Your task to perform on an android device: remove spam from my inbox in the gmail app Image 0: 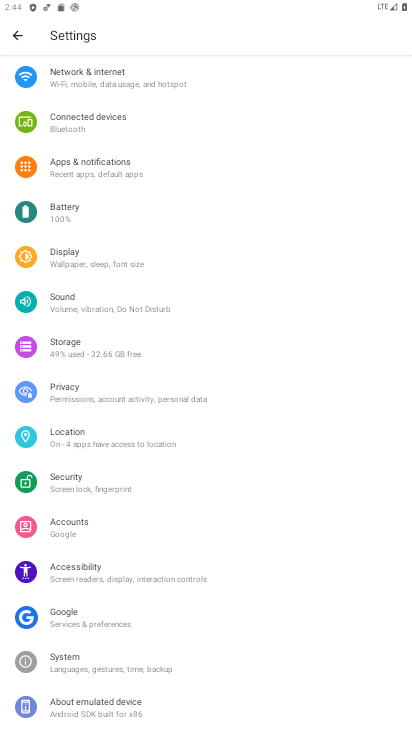
Step 0: press home button
Your task to perform on an android device: remove spam from my inbox in the gmail app Image 1: 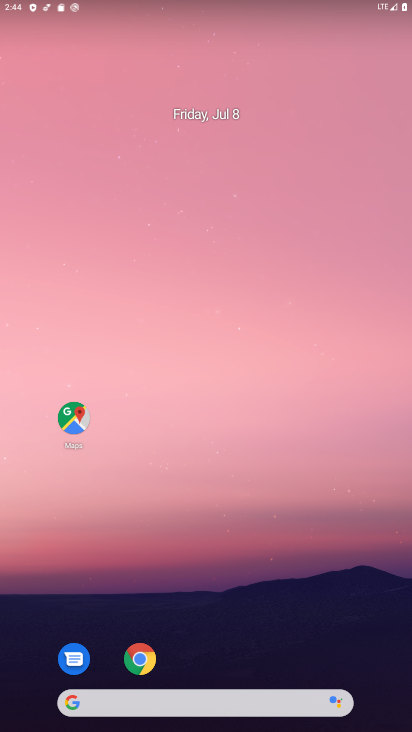
Step 1: drag from (208, 675) to (262, 45)
Your task to perform on an android device: remove spam from my inbox in the gmail app Image 2: 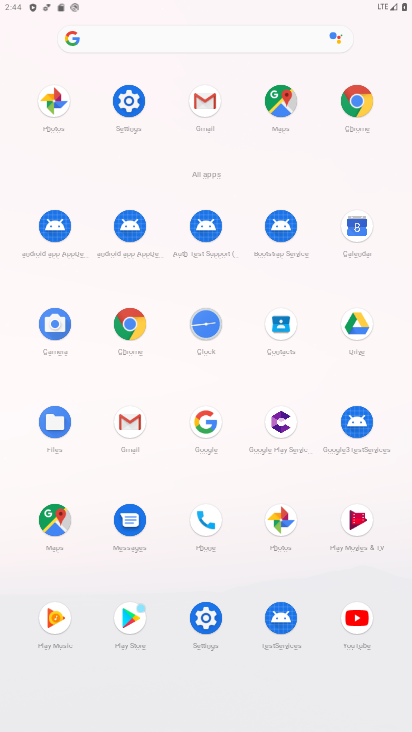
Step 2: click (204, 97)
Your task to perform on an android device: remove spam from my inbox in the gmail app Image 3: 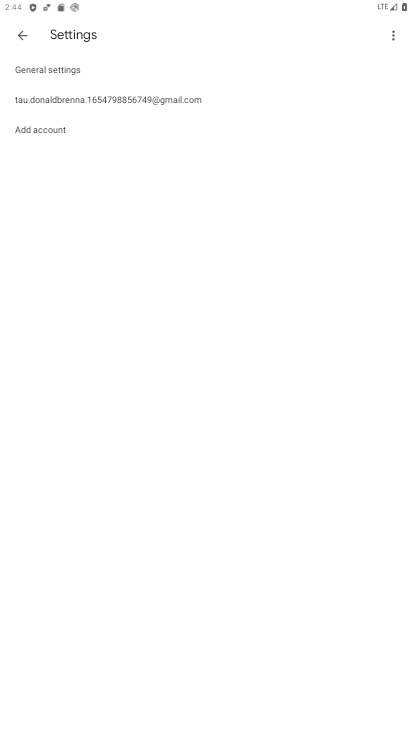
Step 3: click (16, 36)
Your task to perform on an android device: remove spam from my inbox in the gmail app Image 4: 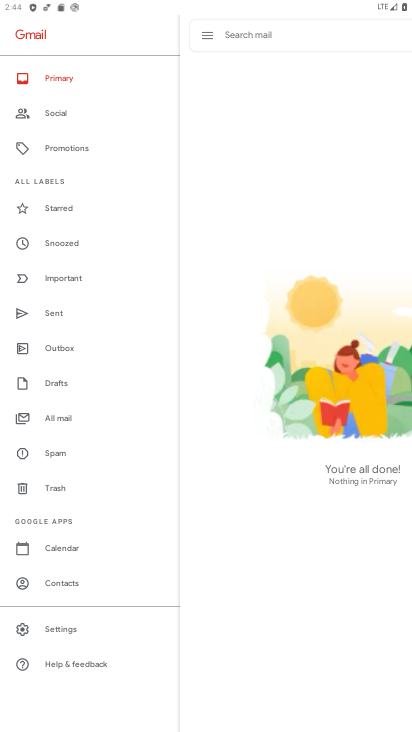
Step 4: click (59, 455)
Your task to perform on an android device: remove spam from my inbox in the gmail app Image 5: 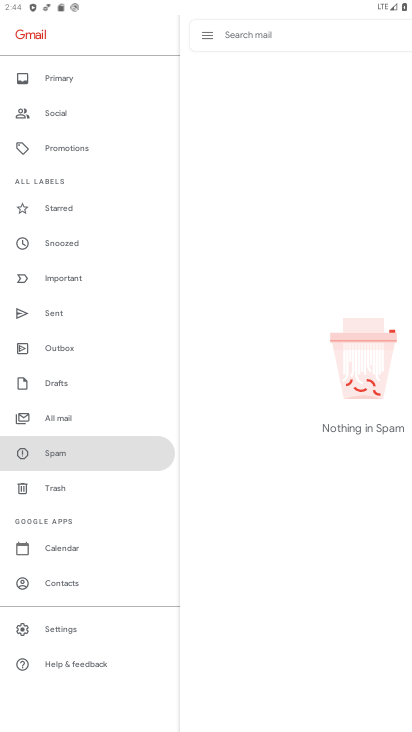
Step 5: task complete